Your task to perform on an android device: Show me productivity apps on the Play Store Image 0: 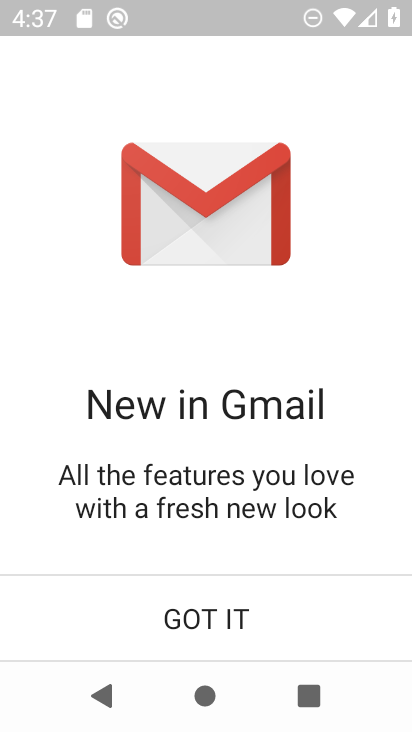
Step 0: press home button
Your task to perform on an android device: Show me productivity apps on the Play Store Image 1: 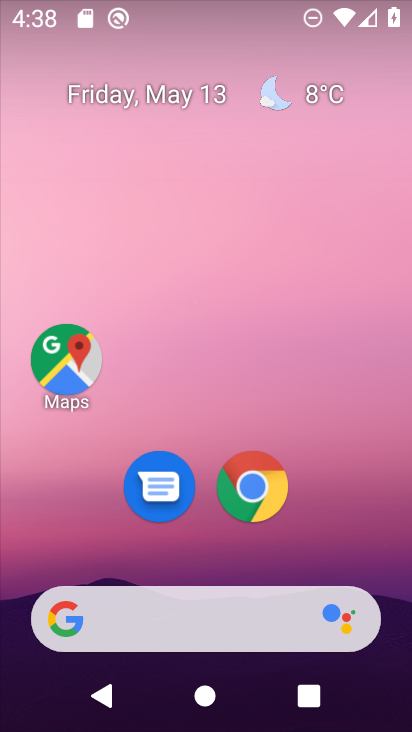
Step 1: drag from (344, 535) to (317, 358)
Your task to perform on an android device: Show me productivity apps on the Play Store Image 2: 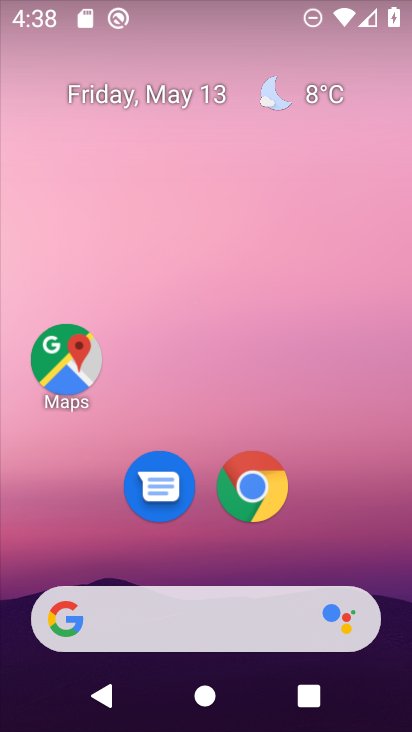
Step 2: drag from (360, 543) to (351, 215)
Your task to perform on an android device: Show me productivity apps on the Play Store Image 3: 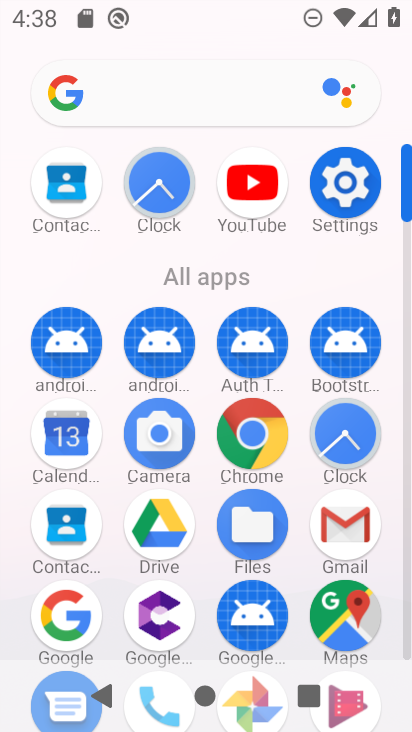
Step 3: click (330, 209)
Your task to perform on an android device: Show me productivity apps on the Play Store Image 4: 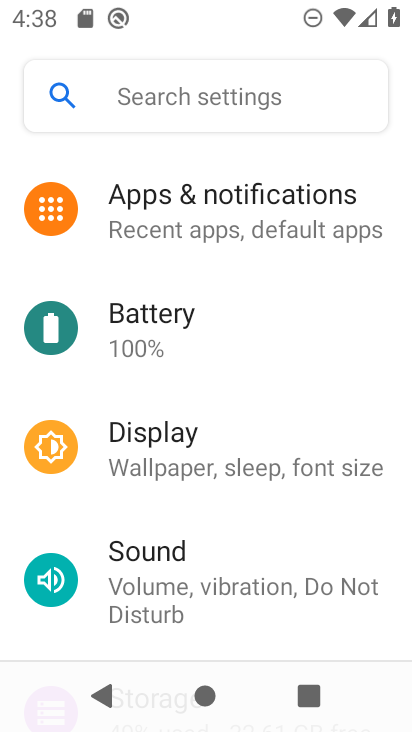
Step 4: press home button
Your task to perform on an android device: Show me productivity apps on the Play Store Image 5: 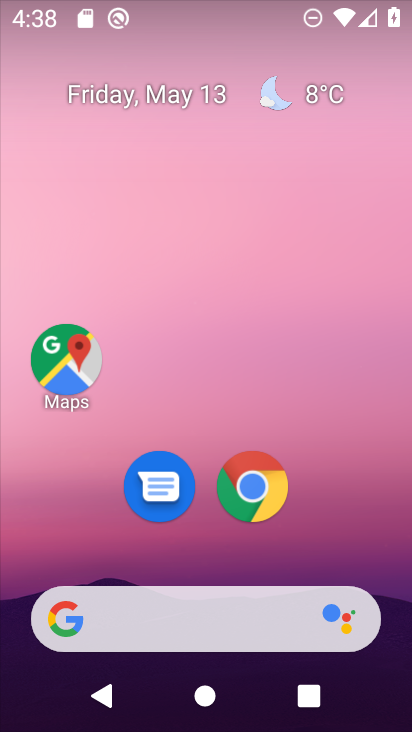
Step 5: drag from (350, 523) to (355, 39)
Your task to perform on an android device: Show me productivity apps on the Play Store Image 6: 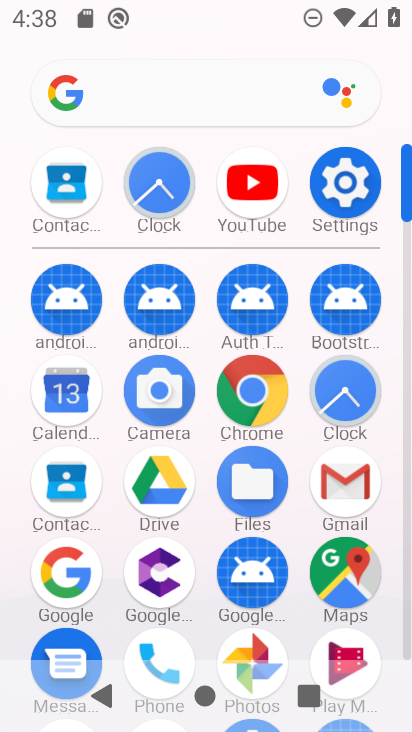
Step 6: click (407, 635)
Your task to perform on an android device: Show me productivity apps on the Play Store Image 7: 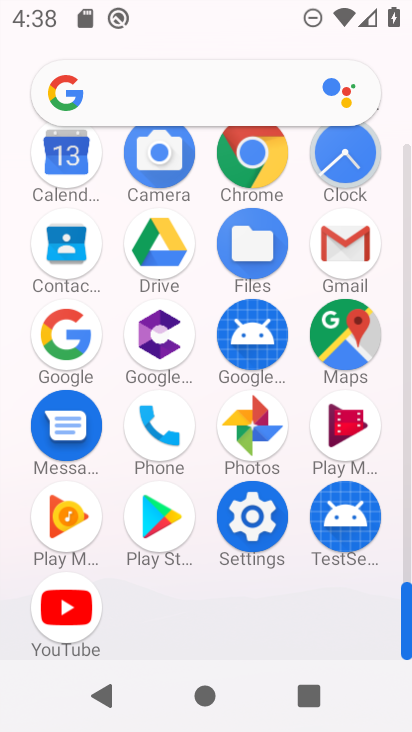
Step 7: click (160, 525)
Your task to perform on an android device: Show me productivity apps on the Play Store Image 8: 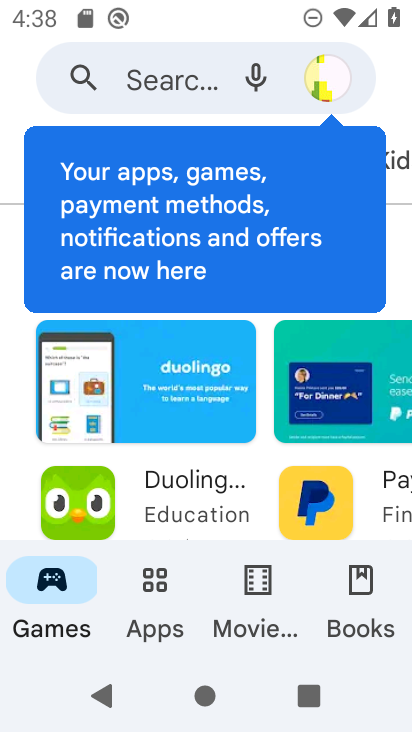
Step 8: click (281, 216)
Your task to perform on an android device: Show me productivity apps on the Play Store Image 9: 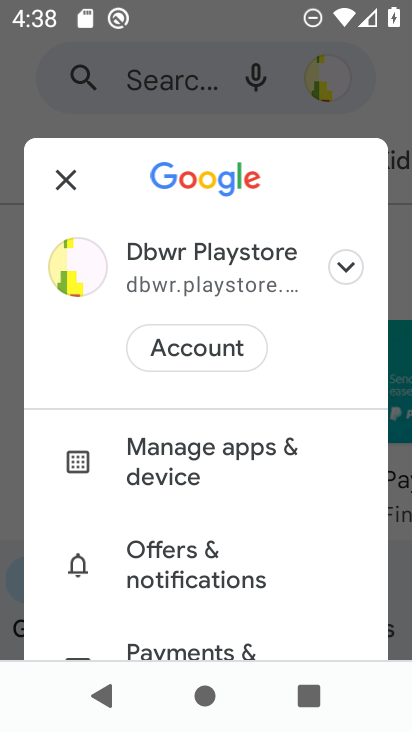
Step 9: click (51, 185)
Your task to perform on an android device: Show me productivity apps on the Play Store Image 10: 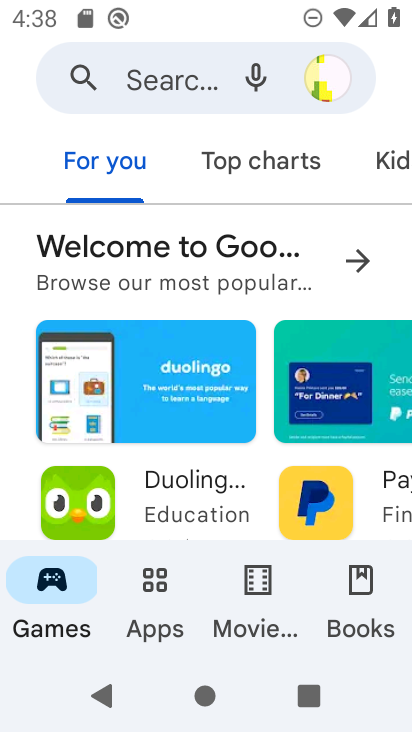
Step 10: click (270, 198)
Your task to perform on an android device: Show me productivity apps on the Play Store Image 11: 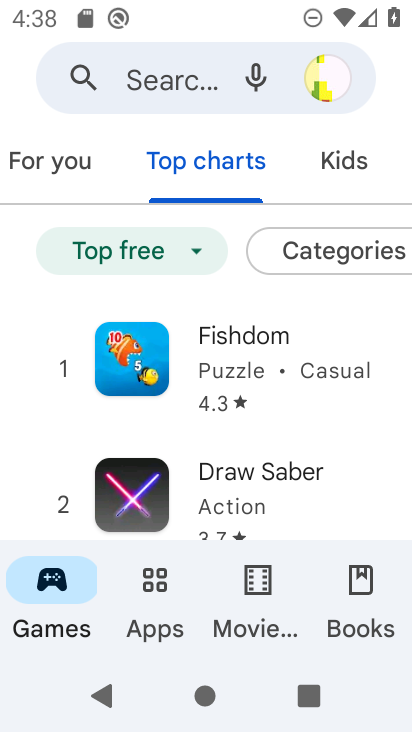
Step 11: click (169, 603)
Your task to perform on an android device: Show me productivity apps on the Play Store Image 12: 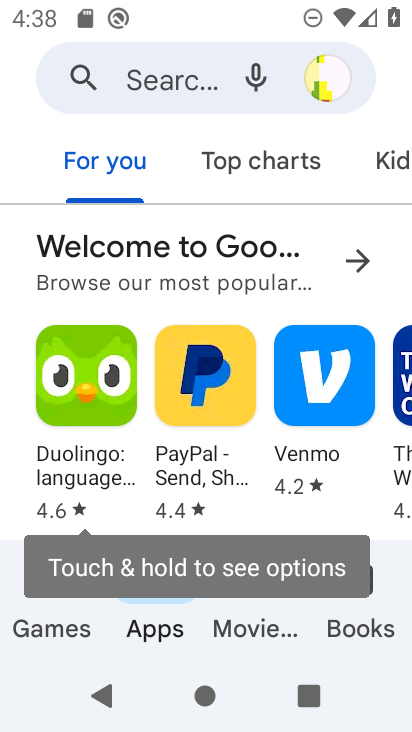
Step 12: click (285, 146)
Your task to perform on an android device: Show me productivity apps on the Play Store Image 13: 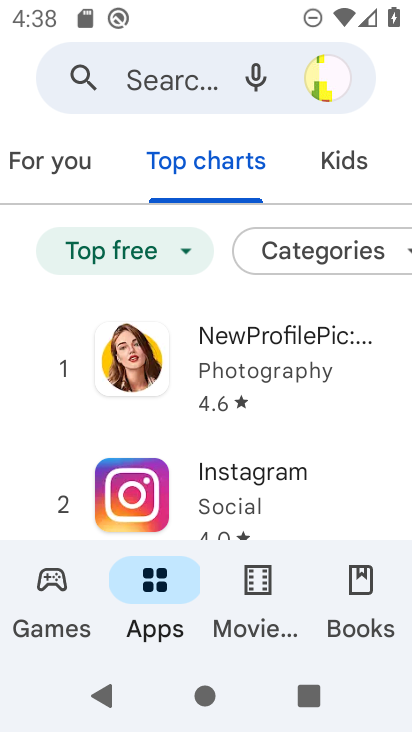
Step 13: click (313, 262)
Your task to perform on an android device: Show me productivity apps on the Play Store Image 14: 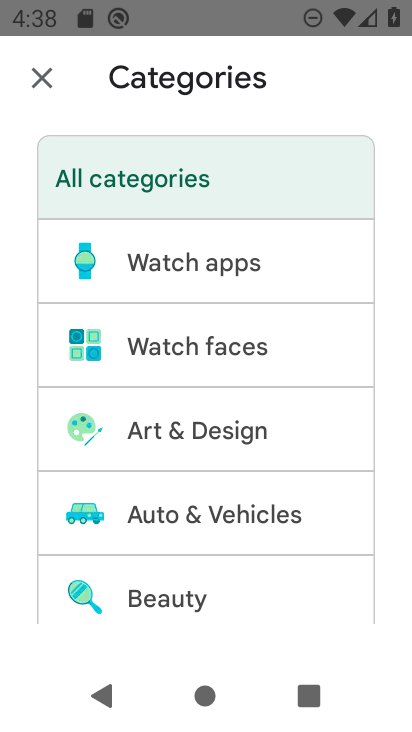
Step 14: drag from (278, 507) to (316, 36)
Your task to perform on an android device: Show me productivity apps on the Play Store Image 15: 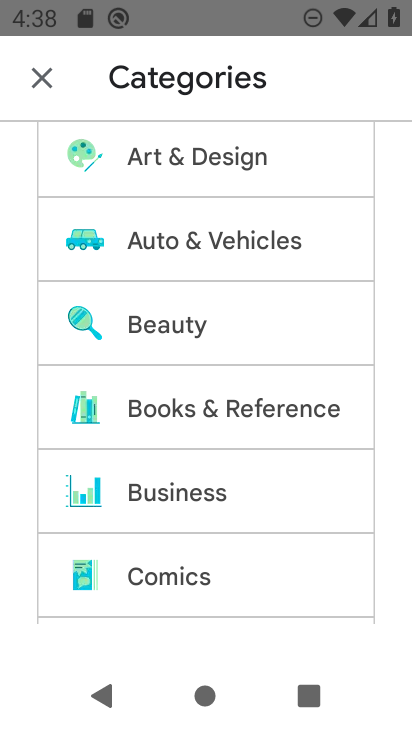
Step 15: drag from (308, 501) to (330, 209)
Your task to perform on an android device: Show me productivity apps on the Play Store Image 16: 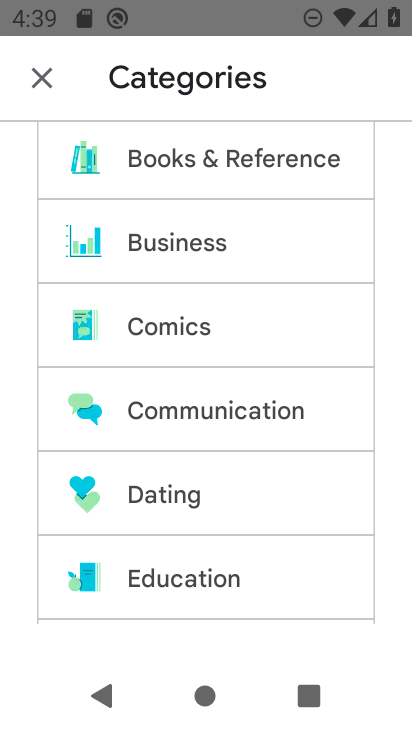
Step 16: drag from (245, 573) to (311, 170)
Your task to perform on an android device: Show me productivity apps on the Play Store Image 17: 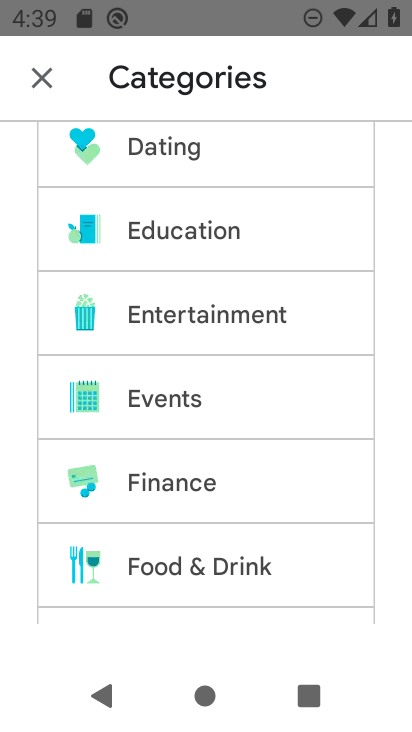
Step 17: drag from (246, 450) to (291, 234)
Your task to perform on an android device: Show me productivity apps on the Play Store Image 18: 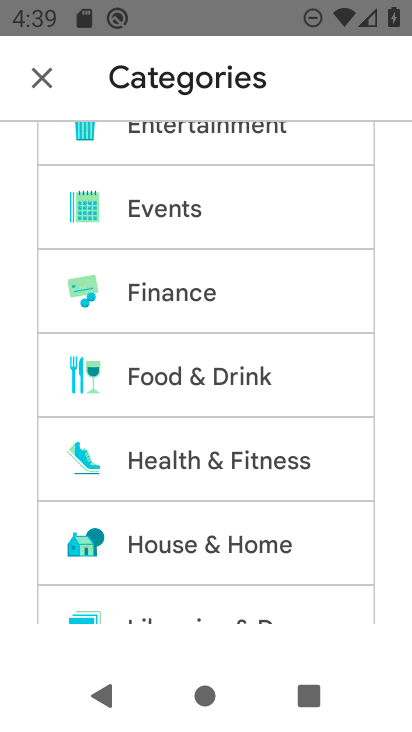
Step 18: drag from (276, 561) to (297, 414)
Your task to perform on an android device: Show me productivity apps on the Play Store Image 19: 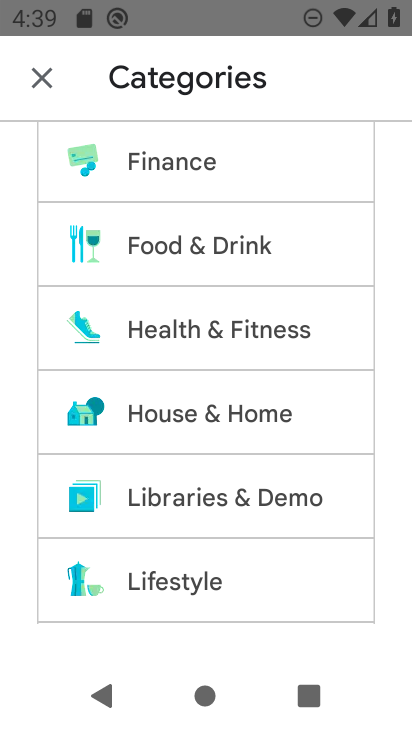
Step 19: drag from (220, 587) to (273, 237)
Your task to perform on an android device: Show me productivity apps on the Play Store Image 20: 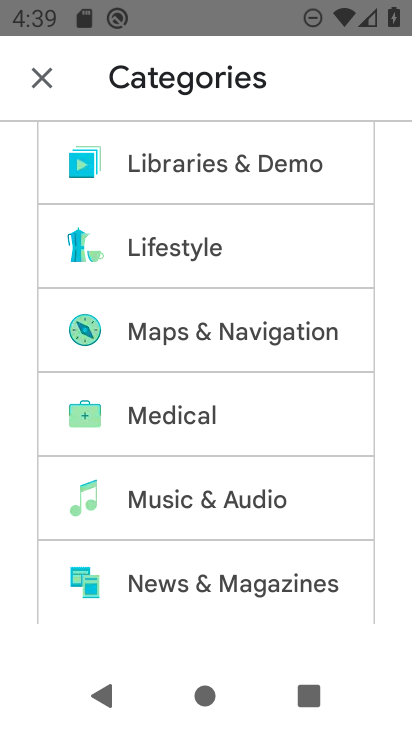
Step 20: drag from (225, 547) to (285, 178)
Your task to perform on an android device: Show me productivity apps on the Play Store Image 21: 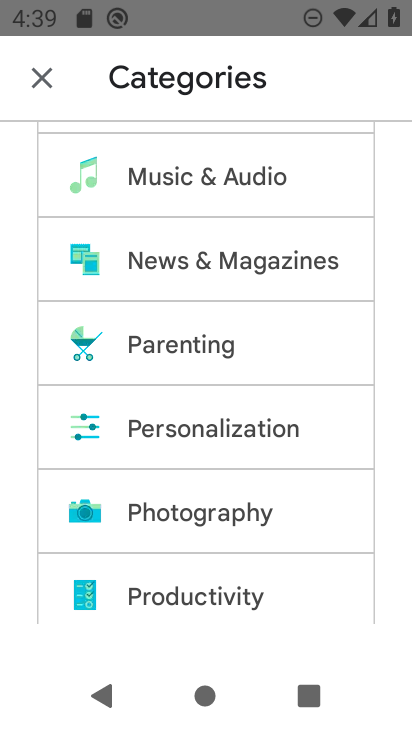
Step 21: click (236, 597)
Your task to perform on an android device: Show me productivity apps on the Play Store Image 22: 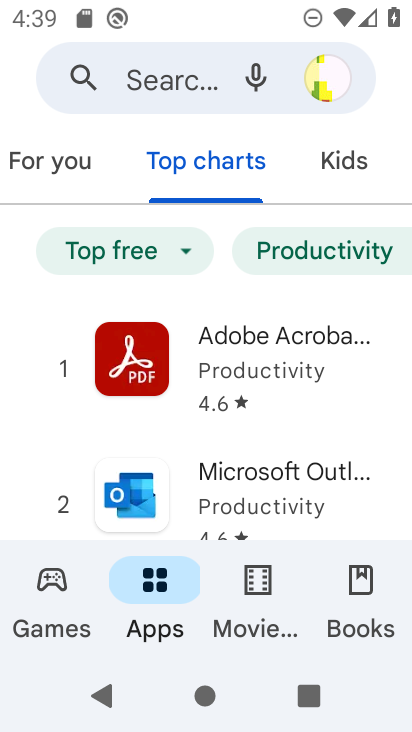
Step 22: task complete